Your task to perform on an android device: Open display settings Image 0: 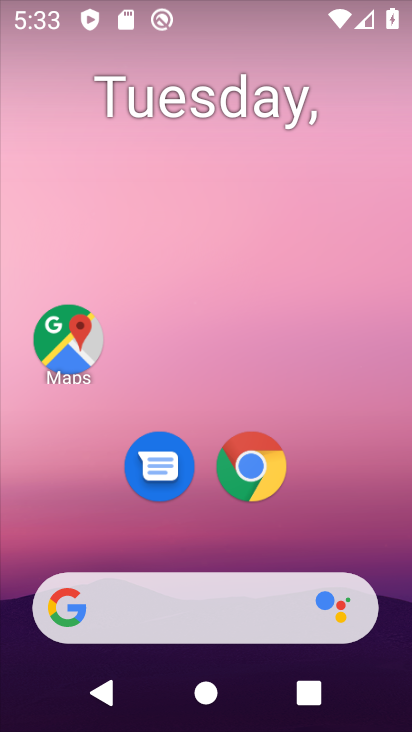
Step 0: press home button
Your task to perform on an android device: Open display settings Image 1: 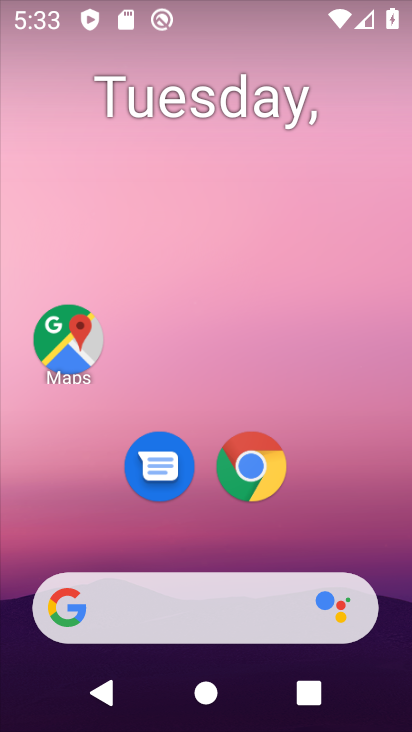
Step 1: drag from (346, 510) to (339, 99)
Your task to perform on an android device: Open display settings Image 2: 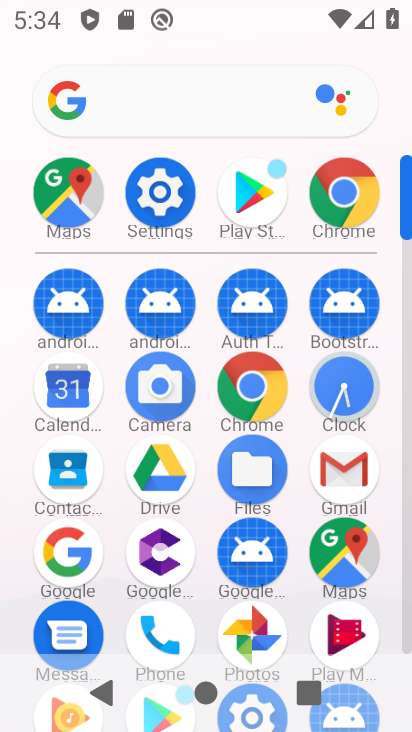
Step 2: click (168, 206)
Your task to perform on an android device: Open display settings Image 3: 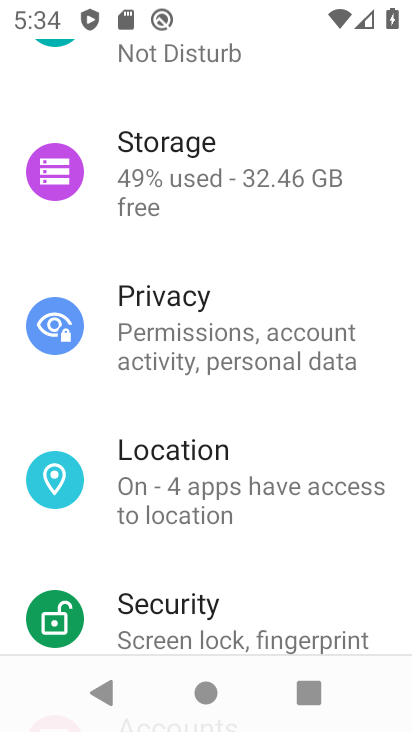
Step 3: drag from (338, 104) to (282, 699)
Your task to perform on an android device: Open display settings Image 4: 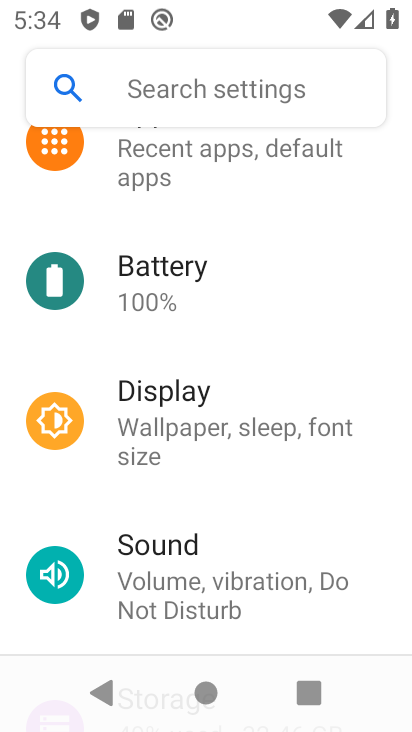
Step 4: click (280, 443)
Your task to perform on an android device: Open display settings Image 5: 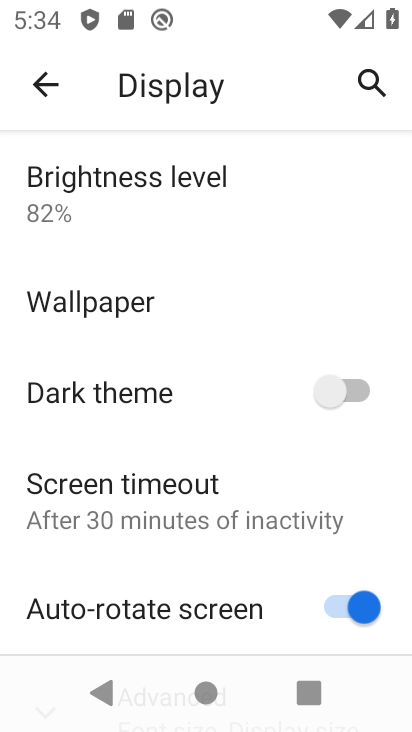
Step 5: task complete